Your task to perform on an android device: Find coffee shops on Maps Image 0: 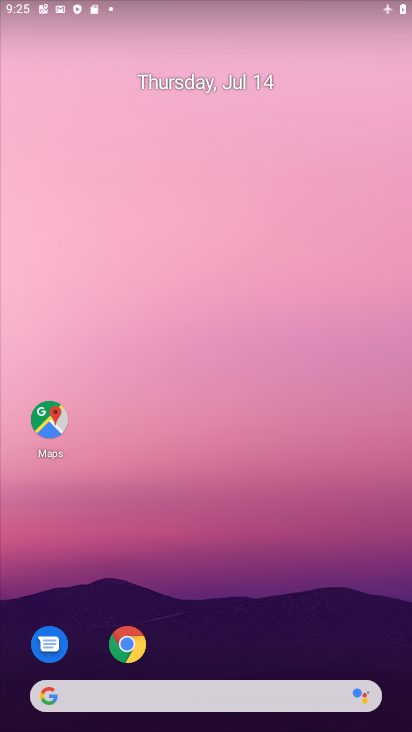
Step 0: click (49, 406)
Your task to perform on an android device: Find coffee shops on Maps Image 1: 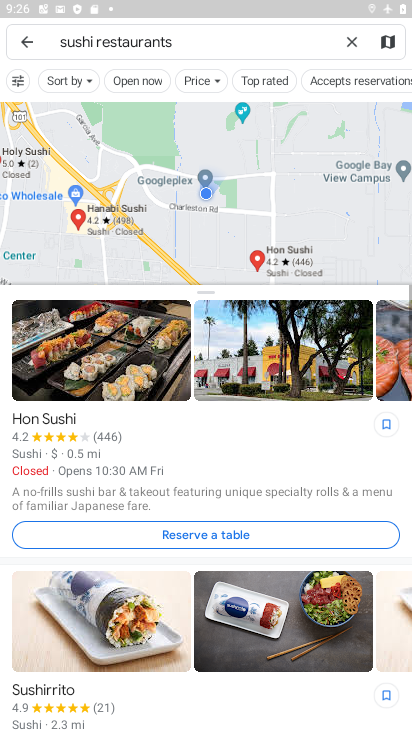
Step 1: click (259, 42)
Your task to perform on an android device: Find coffee shops on Maps Image 2: 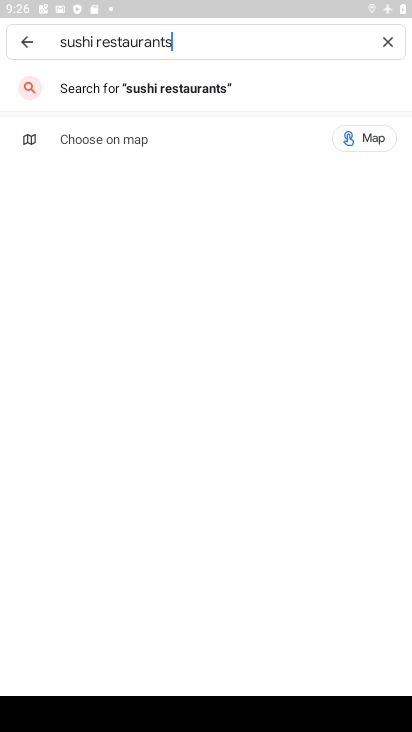
Step 2: click (388, 43)
Your task to perform on an android device: Find coffee shops on Maps Image 3: 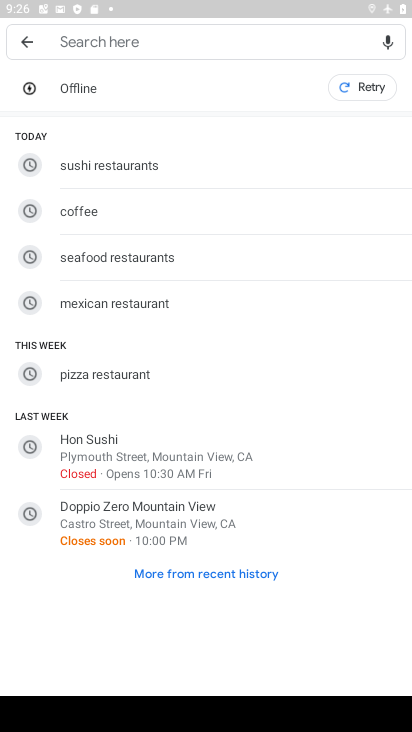
Step 3: type "coffee shops"
Your task to perform on an android device: Find coffee shops on Maps Image 4: 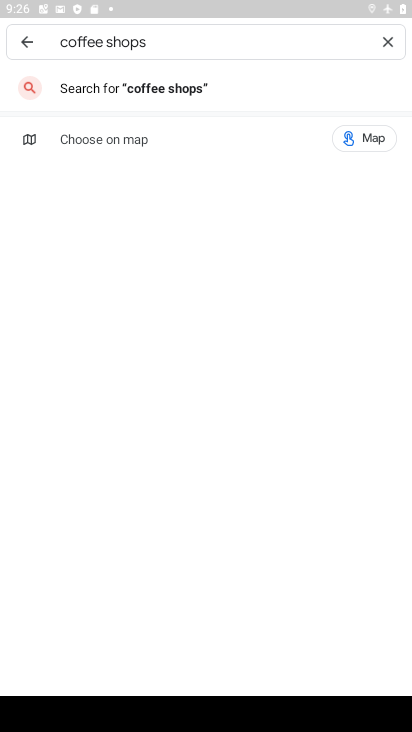
Step 4: click (115, 90)
Your task to perform on an android device: Find coffee shops on Maps Image 5: 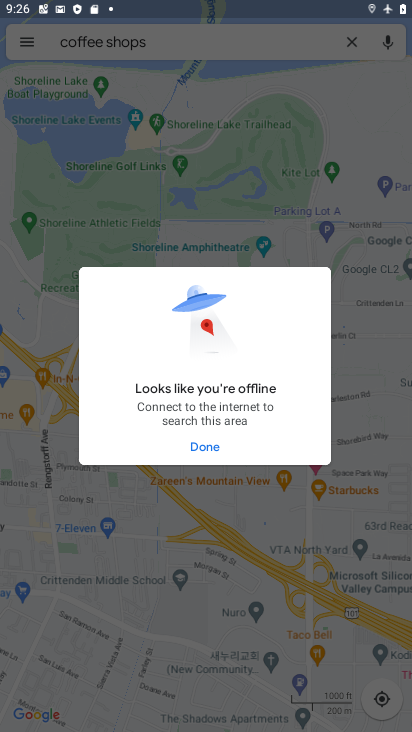
Step 5: task complete